Your task to perform on an android device: Go to Android settings Image 0: 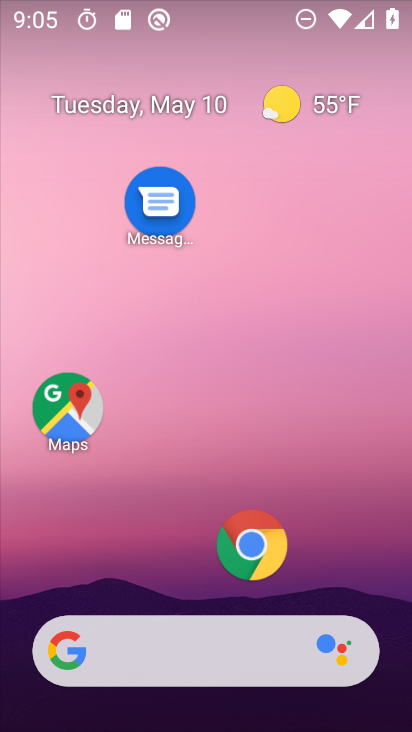
Step 0: drag from (184, 563) to (224, 208)
Your task to perform on an android device: Go to Android settings Image 1: 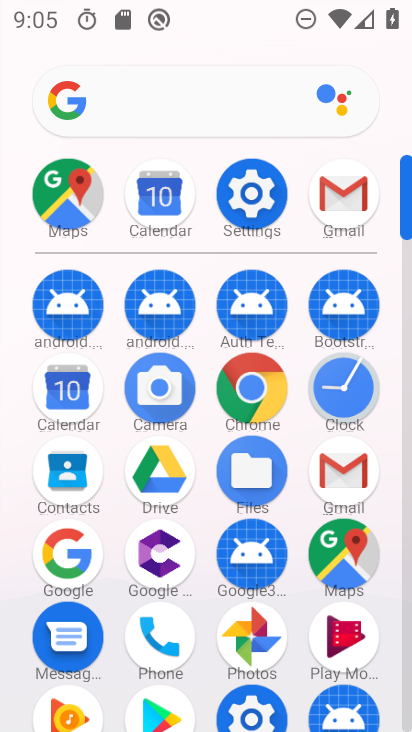
Step 1: click (241, 203)
Your task to perform on an android device: Go to Android settings Image 2: 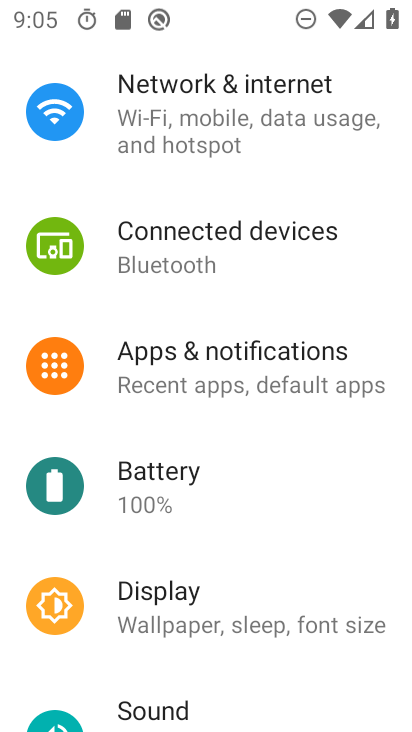
Step 2: task complete